Your task to perform on an android device: Open the Play Movies app and select the watchlist tab. Image 0: 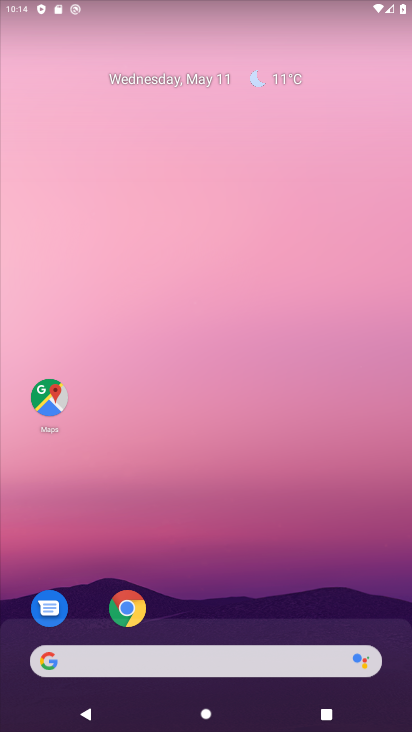
Step 0: drag from (173, 620) to (197, 242)
Your task to perform on an android device: Open the Play Movies app and select the watchlist tab. Image 1: 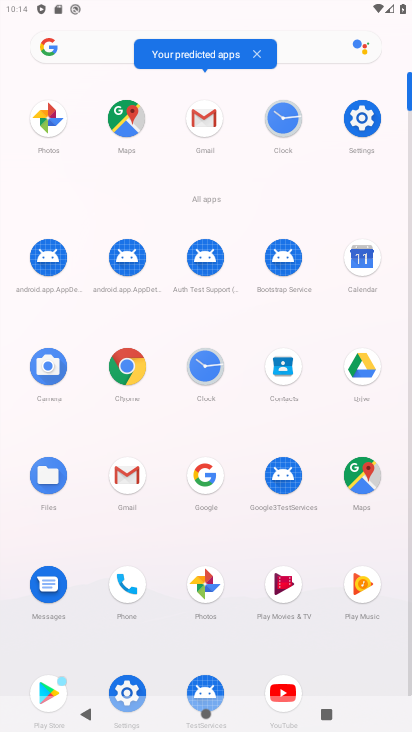
Step 1: click (275, 580)
Your task to perform on an android device: Open the Play Movies app and select the watchlist tab. Image 2: 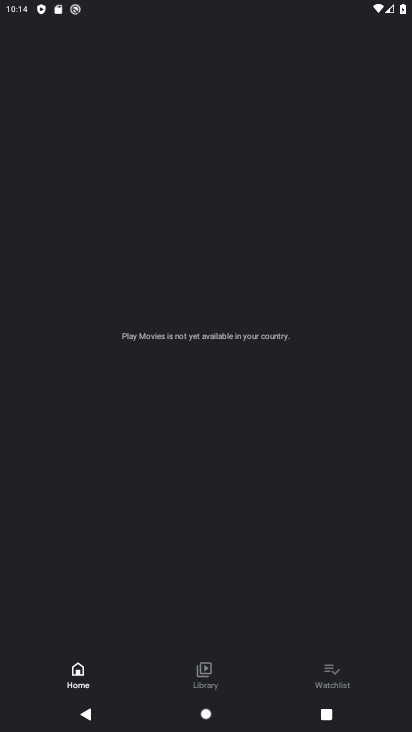
Step 2: click (328, 672)
Your task to perform on an android device: Open the Play Movies app and select the watchlist tab. Image 3: 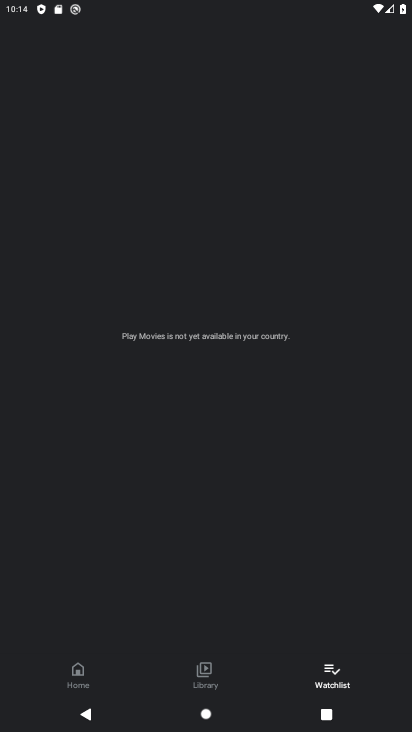
Step 3: task complete